Your task to perform on an android device: make emails show in primary in the gmail app Image 0: 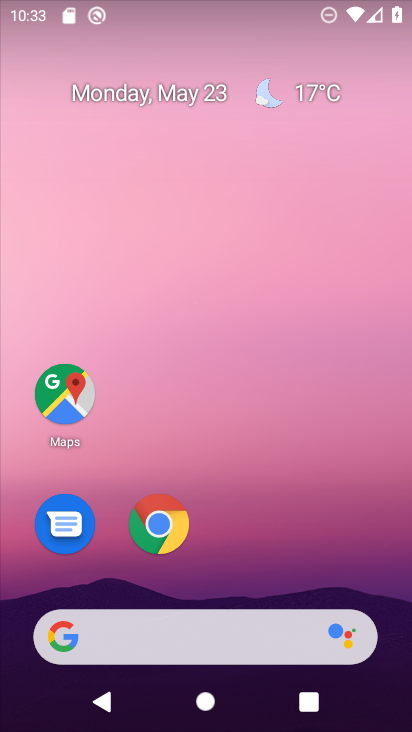
Step 0: drag from (215, 480) to (201, 161)
Your task to perform on an android device: make emails show in primary in the gmail app Image 1: 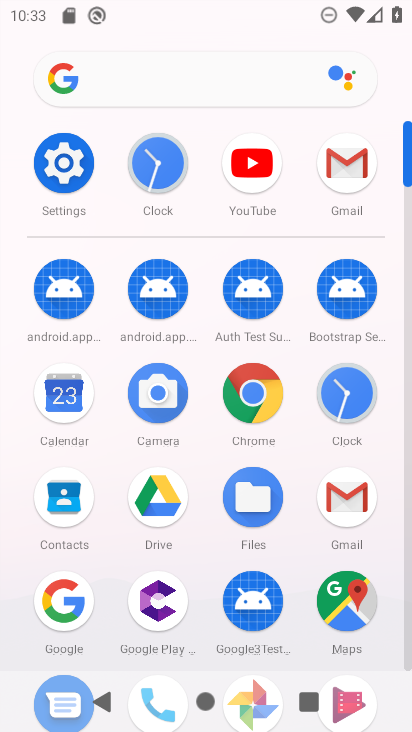
Step 1: click (377, 153)
Your task to perform on an android device: make emails show in primary in the gmail app Image 2: 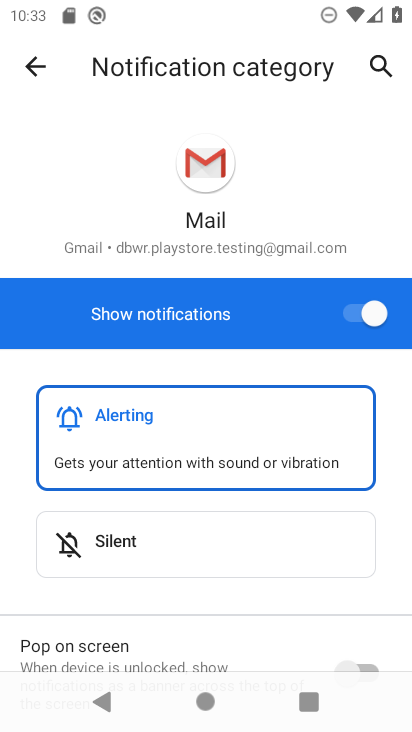
Step 2: click (40, 73)
Your task to perform on an android device: make emails show in primary in the gmail app Image 3: 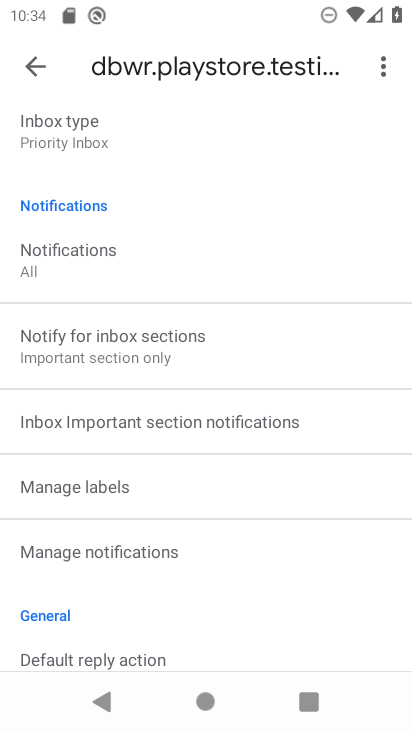
Step 3: click (115, 148)
Your task to perform on an android device: make emails show in primary in the gmail app Image 4: 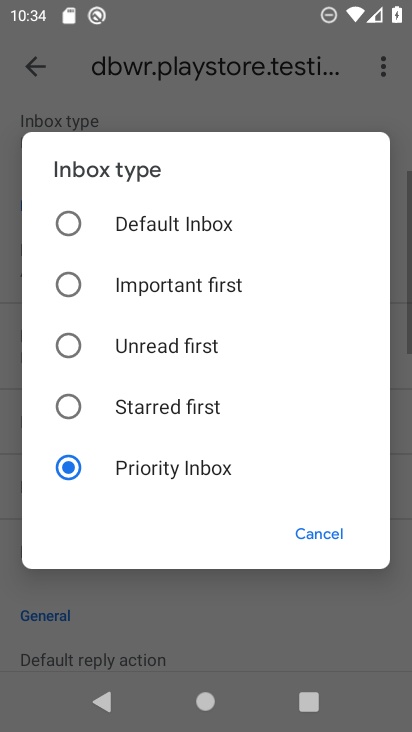
Step 4: click (125, 215)
Your task to perform on an android device: make emails show in primary in the gmail app Image 5: 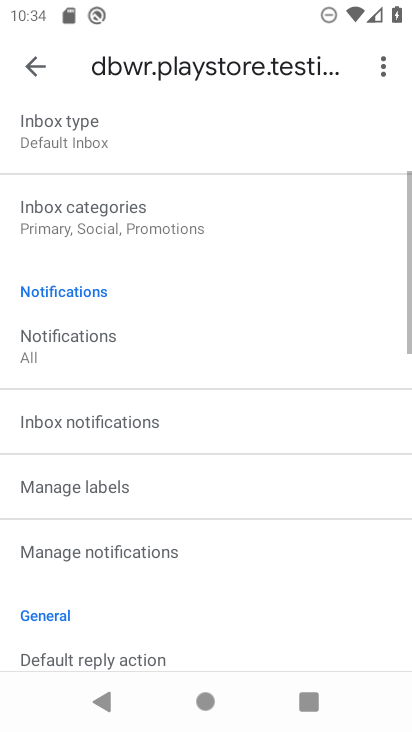
Step 5: click (103, 224)
Your task to perform on an android device: make emails show in primary in the gmail app Image 6: 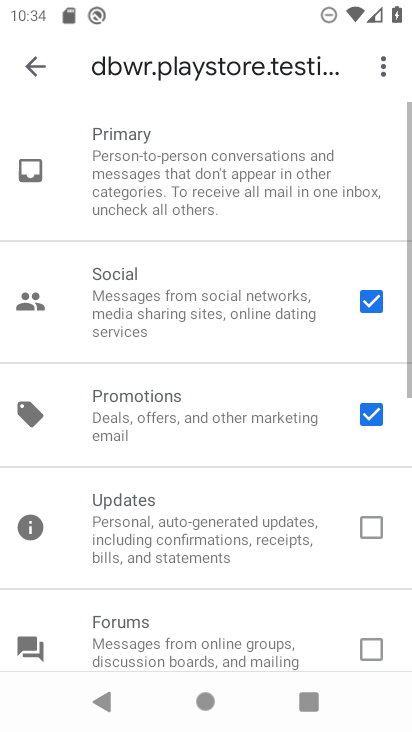
Step 6: click (116, 152)
Your task to perform on an android device: make emails show in primary in the gmail app Image 7: 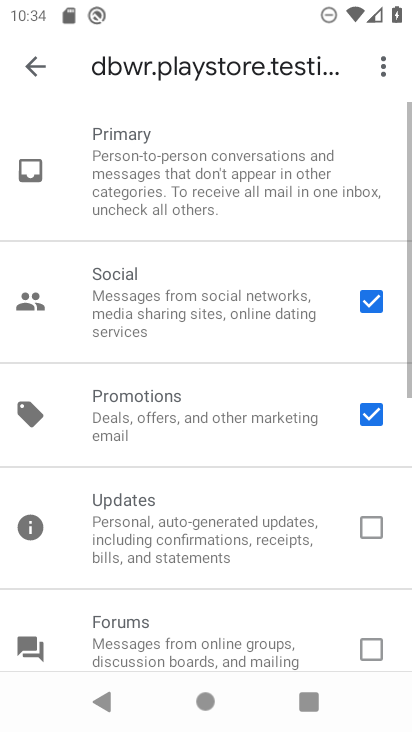
Step 7: task complete